Your task to perform on an android device: What's on my calendar tomorrow? Image 0: 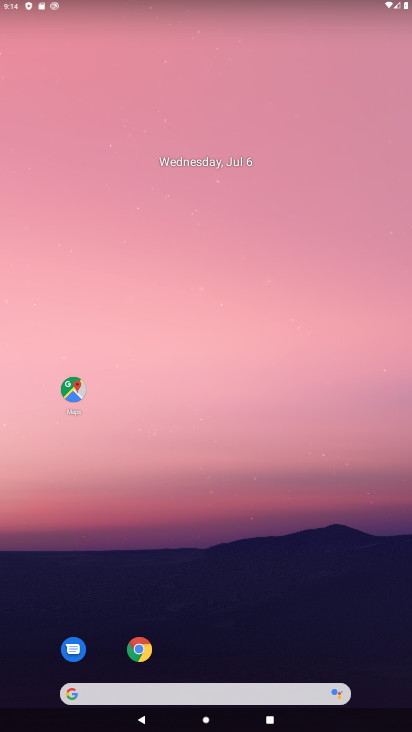
Step 0: press home button
Your task to perform on an android device: What's on my calendar tomorrow? Image 1: 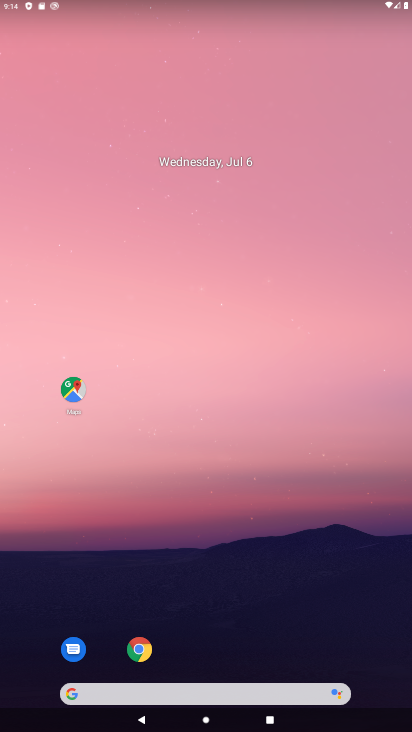
Step 1: drag from (209, 675) to (197, 127)
Your task to perform on an android device: What's on my calendar tomorrow? Image 2: 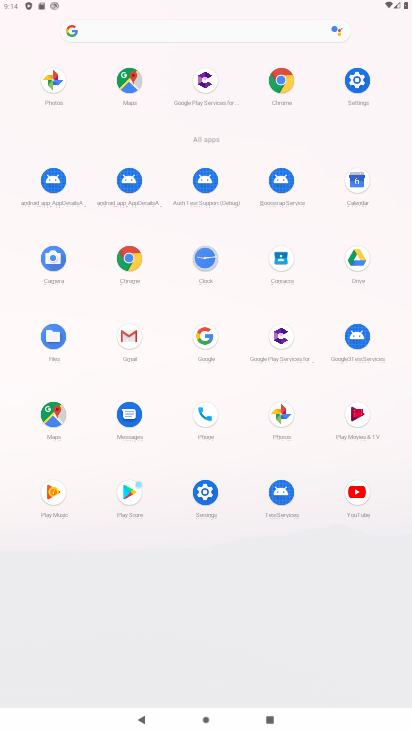
Step 2: click (355, 175)
Your task to perform on an android device: What's on my calendar tomorrow? Image 3: 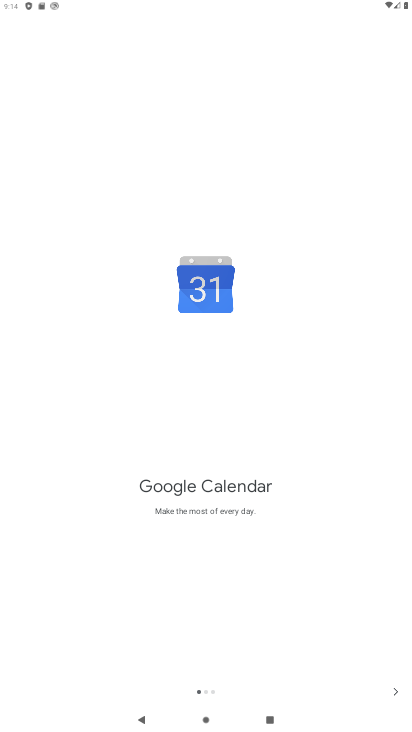
Step 3: click (396, 693)
Your task to perform on an android device: What's on my calendar tomorrow? Image 4: 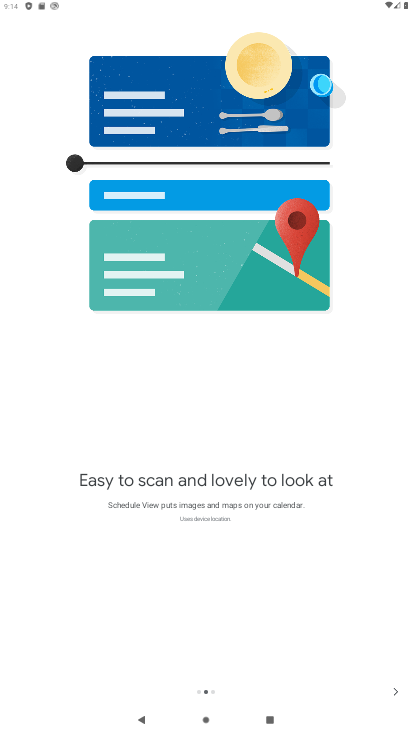
Step 4: click (394, 687)
Your task to perform on an android device: What's on my calendar tomorrow? Image 5: 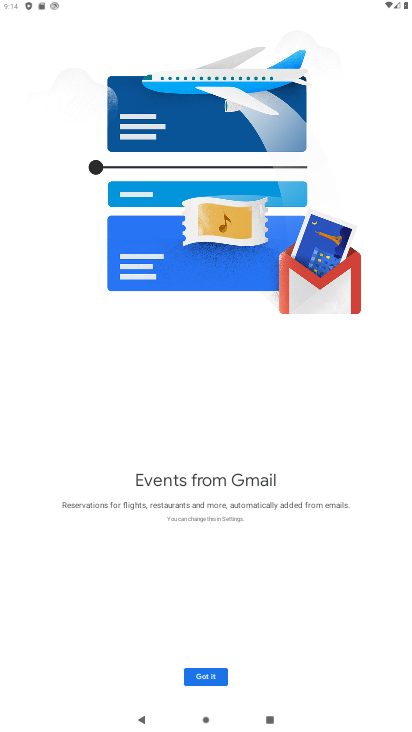
Step 5: click (204, 675)
Your task to perform on an android device: What's on my calendar tomorrow? Image 6: 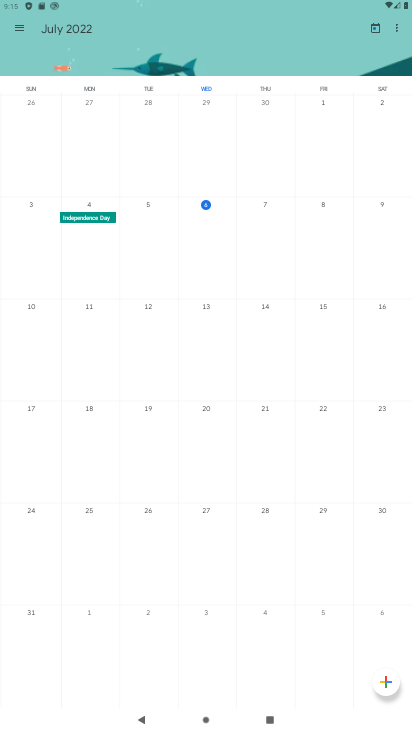
Step 6: click (20, 26)
Your task to perform on an android device: What's on my calendar tomorrow? Image 7: 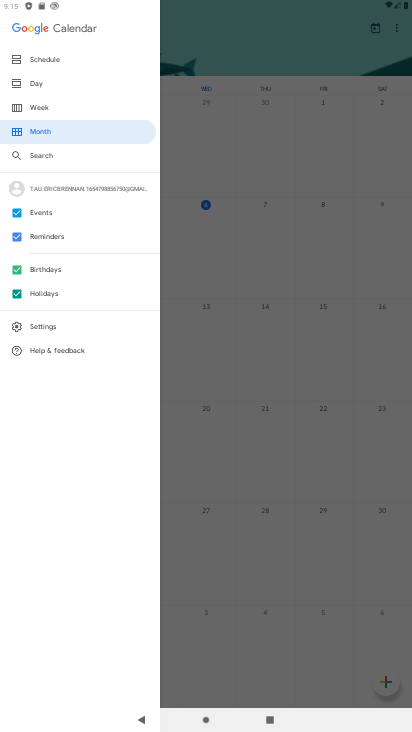
Step 7: click (38, 80)
Your task to perform on an android device: What's on my calendar tomorrow? Image 8: 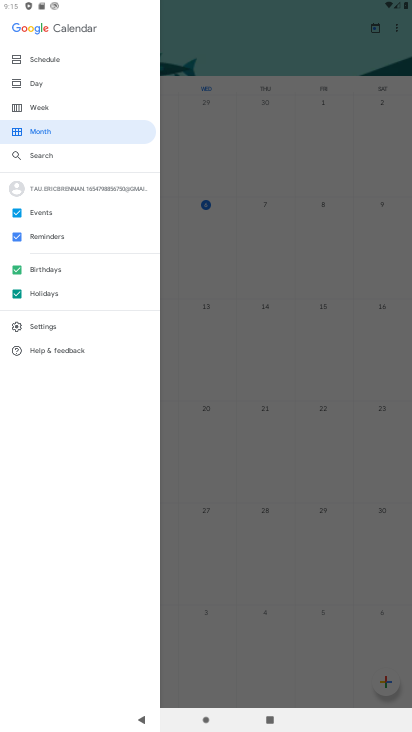
Step 8: click (33, 83)
Your task to perform on an android device: What's on my calendar tomorrow? Image 9: 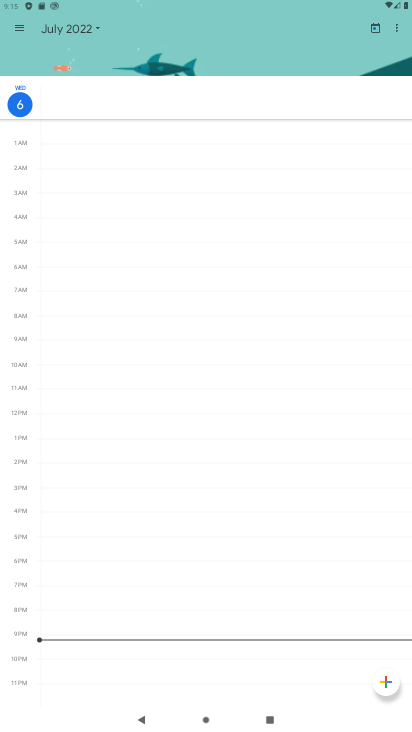
Step 9: click (25, 103)
Your task to perform on an android device: What's on my calendar tomorrow? Image 10: 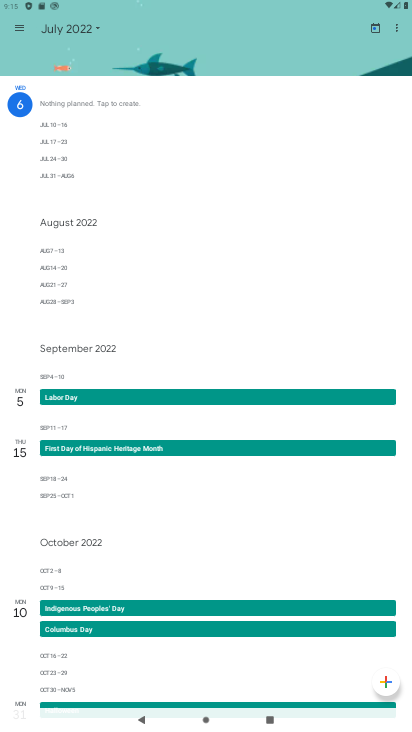
Step 10: click (95, 28)
Your task to perform on an android device: What's on my calendar tomorrow? Image 11: 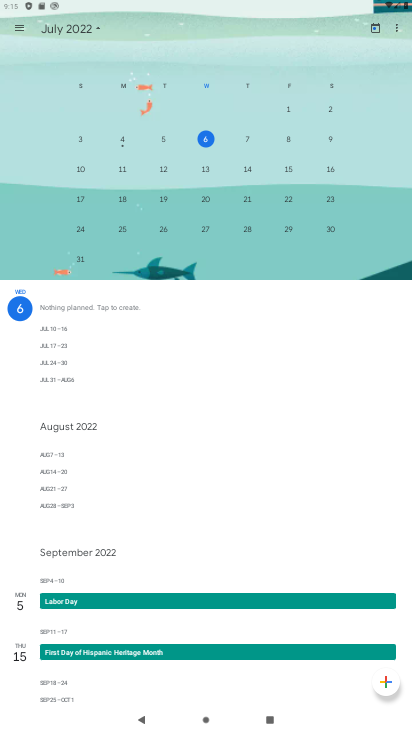
Step 11: click (244, 136)
Your task to perform on an android device: What's on my calendar tomorrow? Image 12: 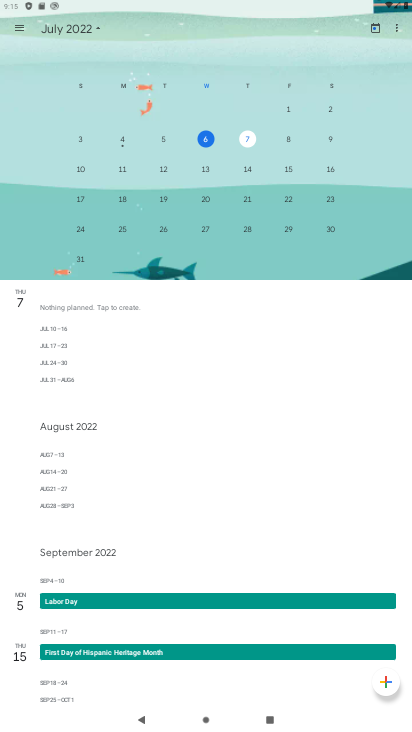
Step 12: click (247, 137)
Your task to perform on an android device: What's on my calendar tomorrow? Image 13: 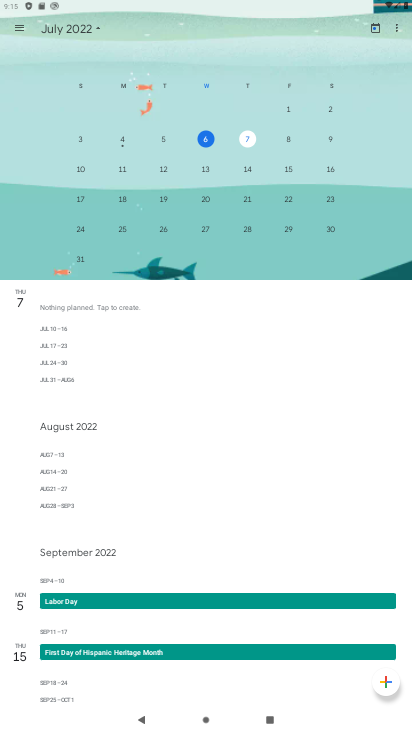
Step 13: click (23, 301)
Your task to perform on an android device: What's on my calendar tomorrow? Image 14: 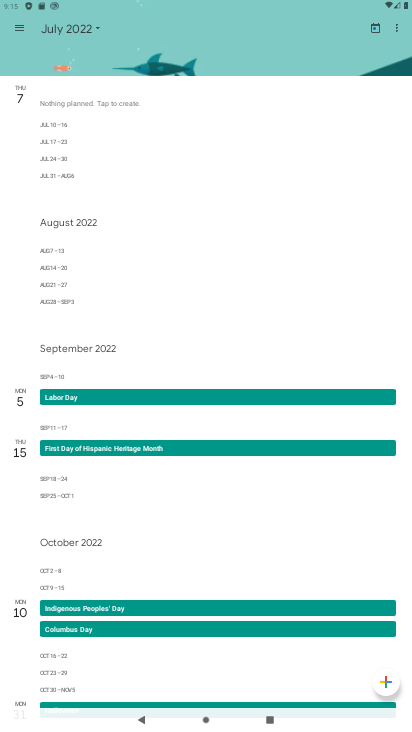
Step 14: click (28, 99)
Your task to perform on an android device: What's on my calendar tomorrow? Image 15: 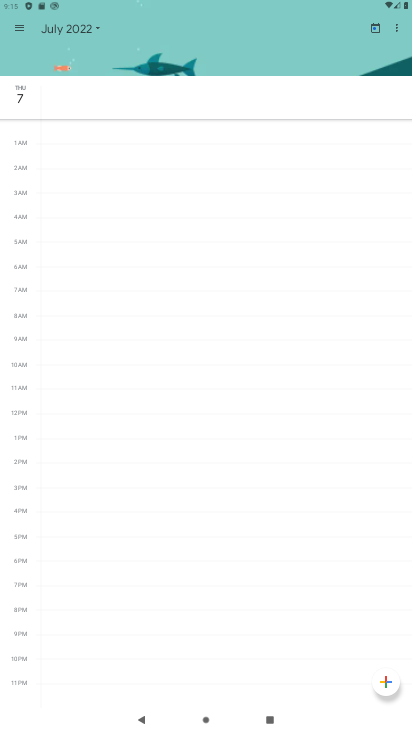
Step 15: drag from (23, 494) to (24, 388)
Your task to perform on an android device: What's on my calendar tomorrow? Image 16: 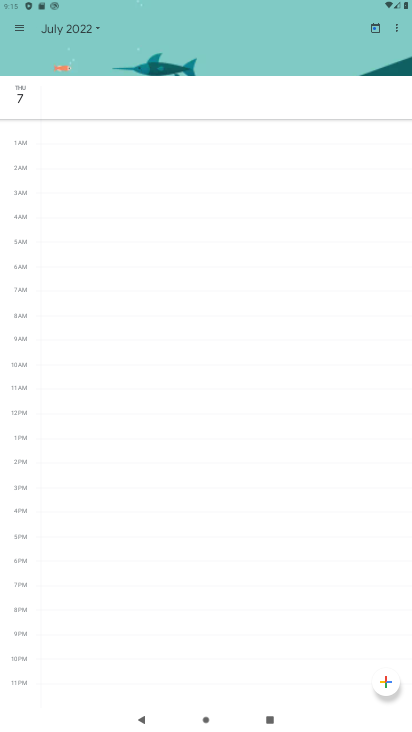
Step 16: click (27, 247)
Your task to perform on an android device: What's on my calendar tomorrow? Image 17: 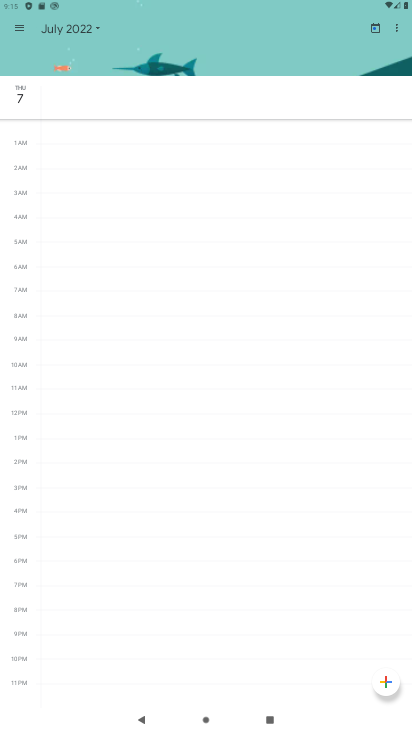
Step 17: task complete